Your task to perform on an android device: turn off wifi Image 0: 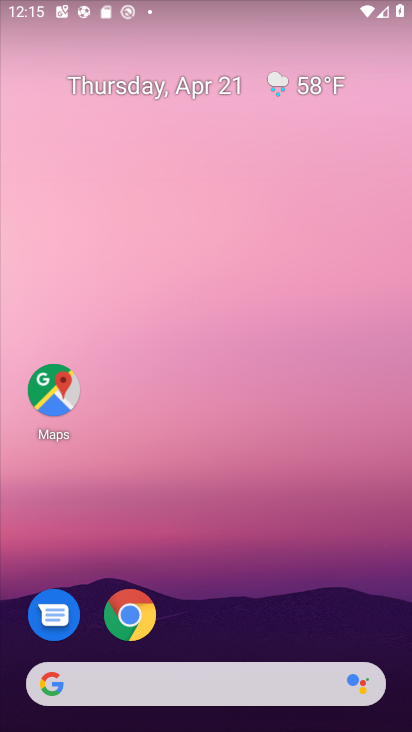
Step 0: drag from (364, 590) to (359, 147)
Your task to perform on an android device: turn off wifi Image 1: 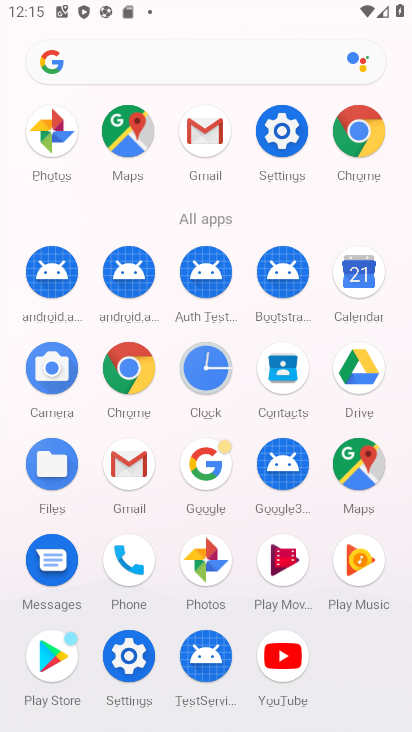
Step 1: click (291, 144)
Your task to perform on an android device: turn off wifi Image 2: 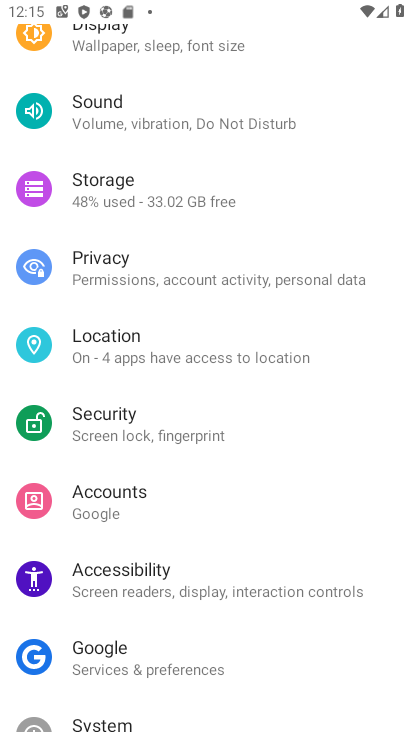
Step 2: drag from (333, 114) to (277, 607)
Your task to perform on an android device: turn off wifi Image 3: 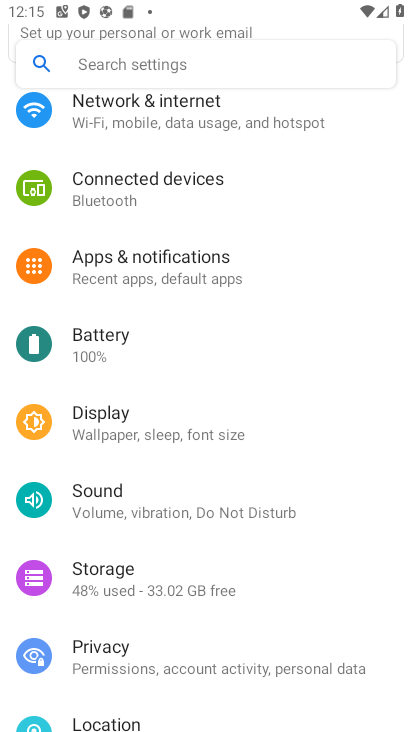
Step 3: drag from (275, 243) to (292, 612)
Your task to perform on an android device: turn off wifi Image 4: 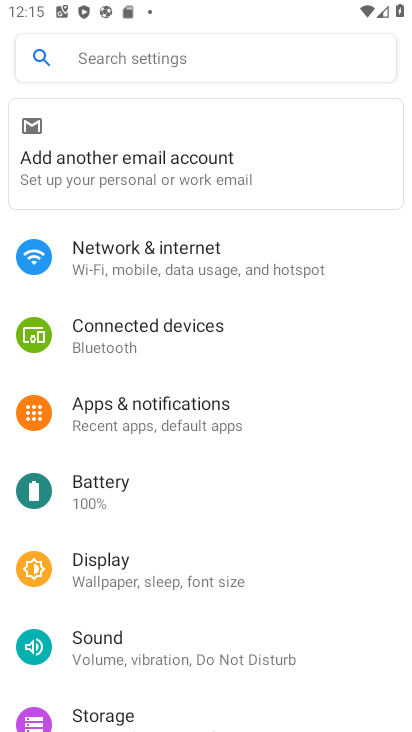
Step 4: click (190, 266)
Your task to perform on an android device: turn off wifi Image 5: 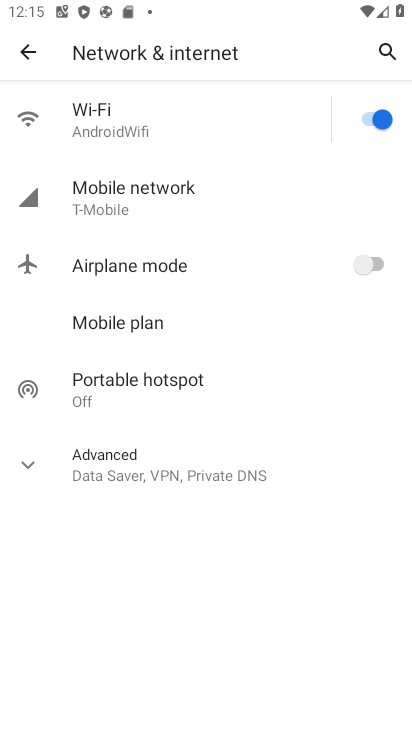
Step 5: click (368, 120)
Your task to perform on an android device: turn off wifi Image 6: 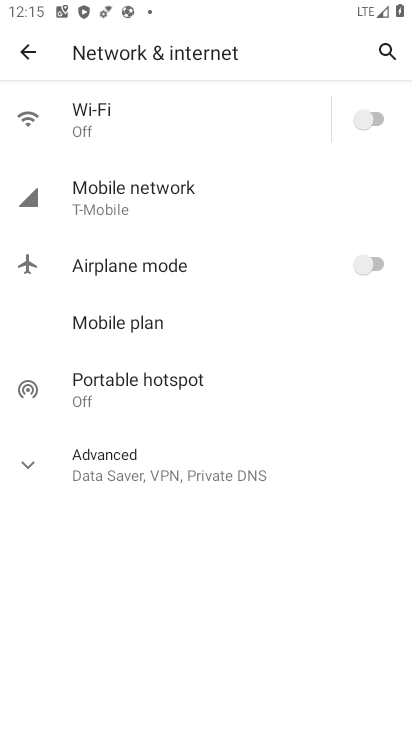
Step 6: task complete